Your task to perform on an android device: change text size in settings app Image 0: 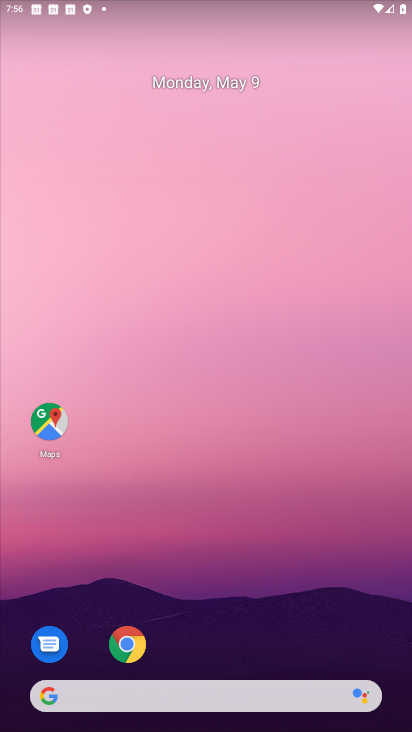
Step 0: press home button
Your task to perform on an android device: change text size in settings app Image 1: 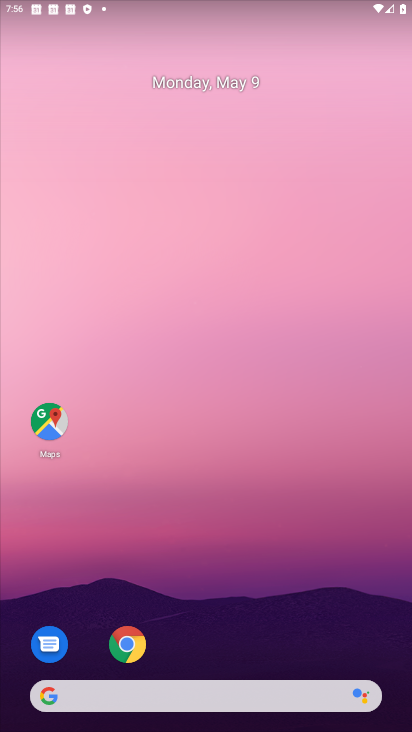
Step 1: drag from (178, 612) to (192, 216)
Your task to perform on an android device: change text size in settings app Image 2: 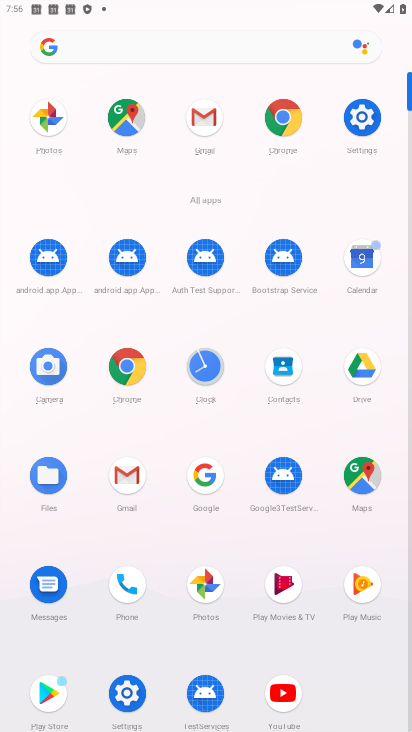
Step 2: click (367, 118)
Your task to perform on an android device: change text size in settings app Image 3: 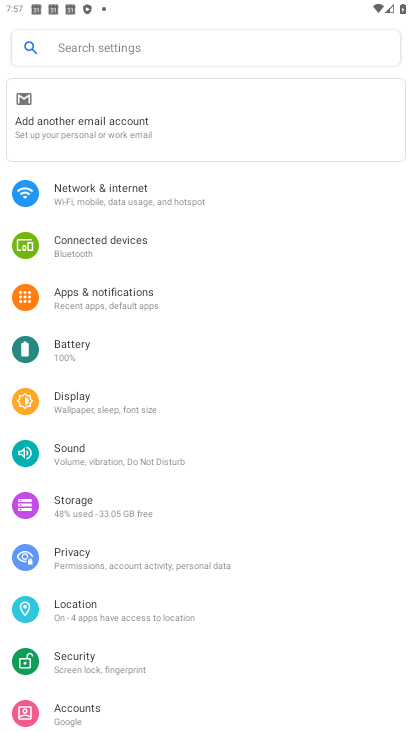
Step 3: click (86, 411)
Your task to perform on an android device: change text size in settings app Image 4: 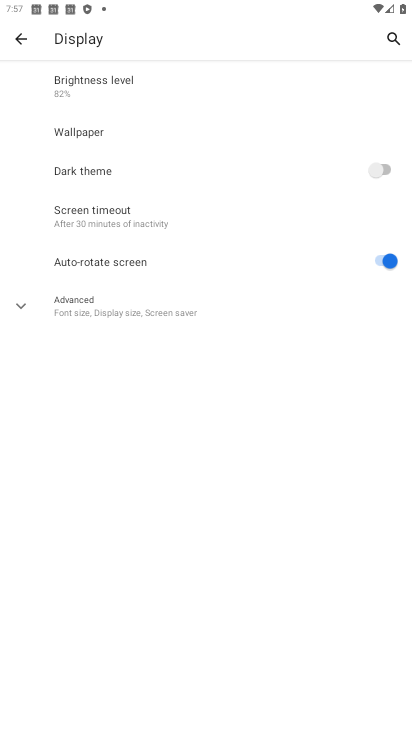
Step 4: click (14, 303)
Your task to perform on an android device: change text size in settings app Image 5: 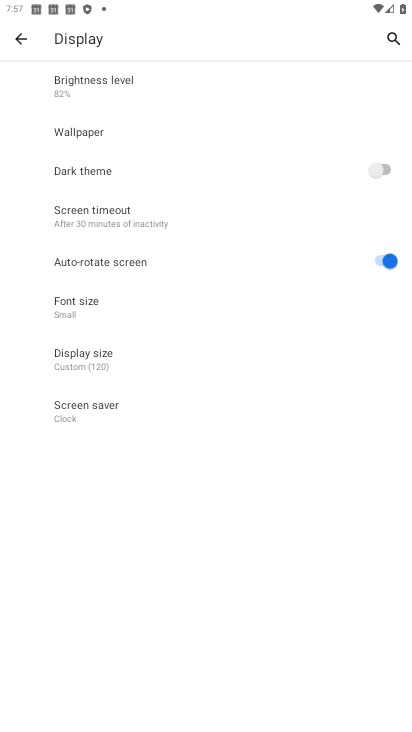
Step 5: click (88, 317)
Your task to perform on an android device: change text size in settings app Image 6: 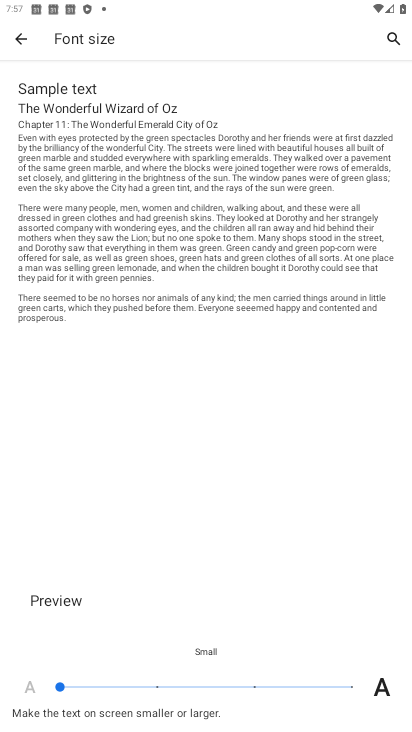
Step 6: click (111, 689)
Your task to perform on an android device: change text size in settings app Image 7: 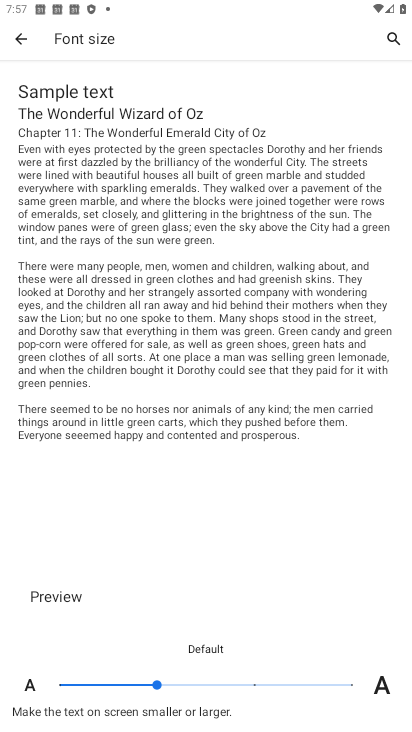
Step 7: task complete